Your task to perform on an android device: open app "Expedia: Hotels, Flights & Car" Image 0: 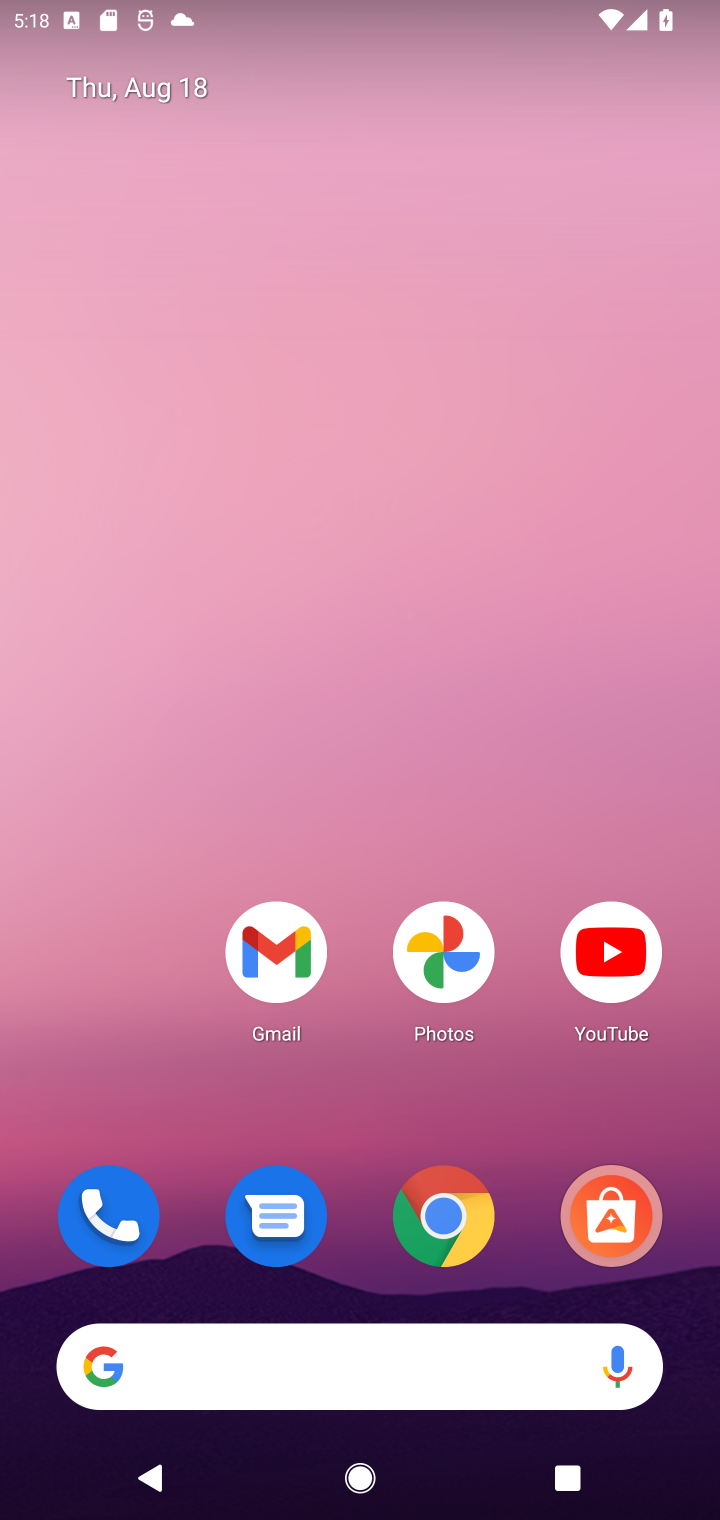
Step 0: drag from (367, 1081) to (355, 312)
Your task to perform on an android device: open app "Expedia: Hotels, Flights & Car" Image 1: 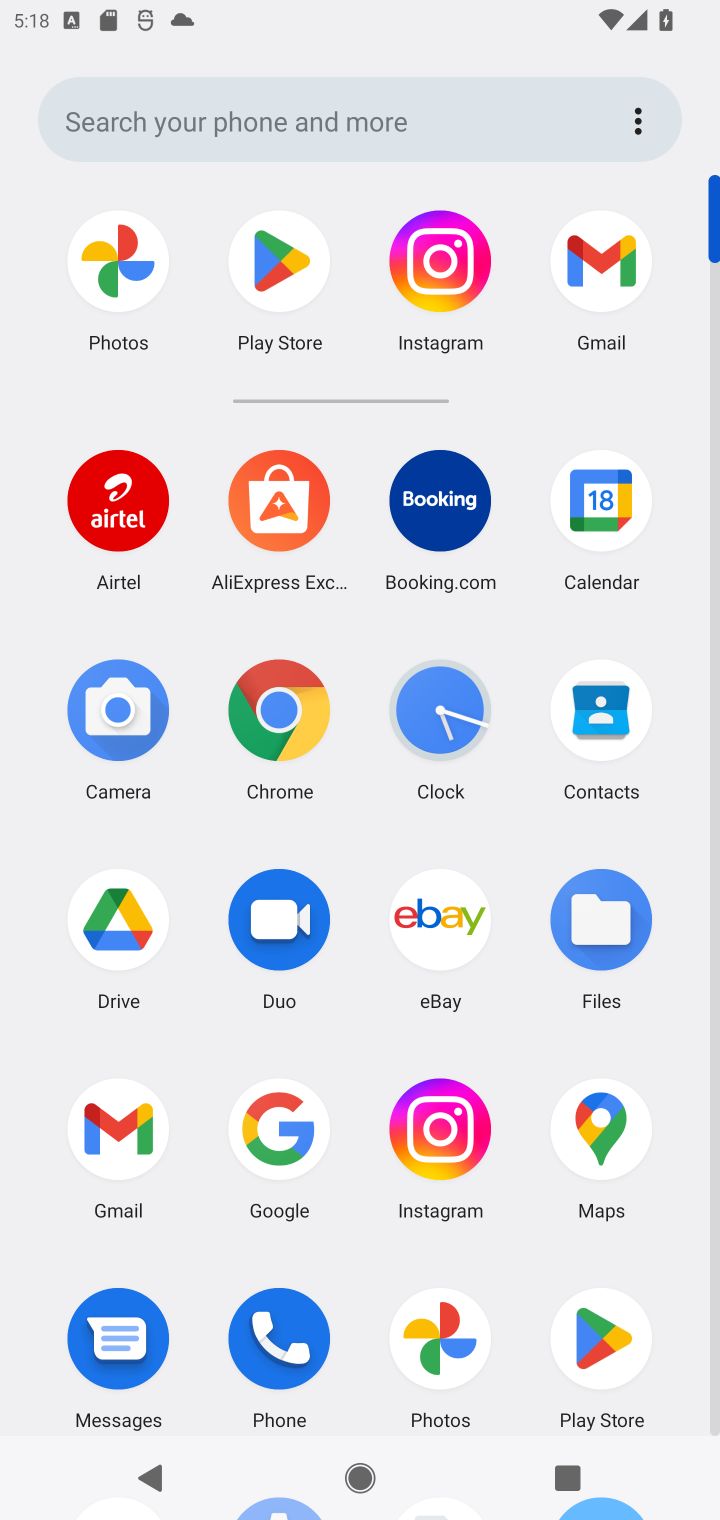
Step 1: click (288, 240)
Your task to perform on an android device: open app "Expedia: Hotels, Flights & Car" Image 2: 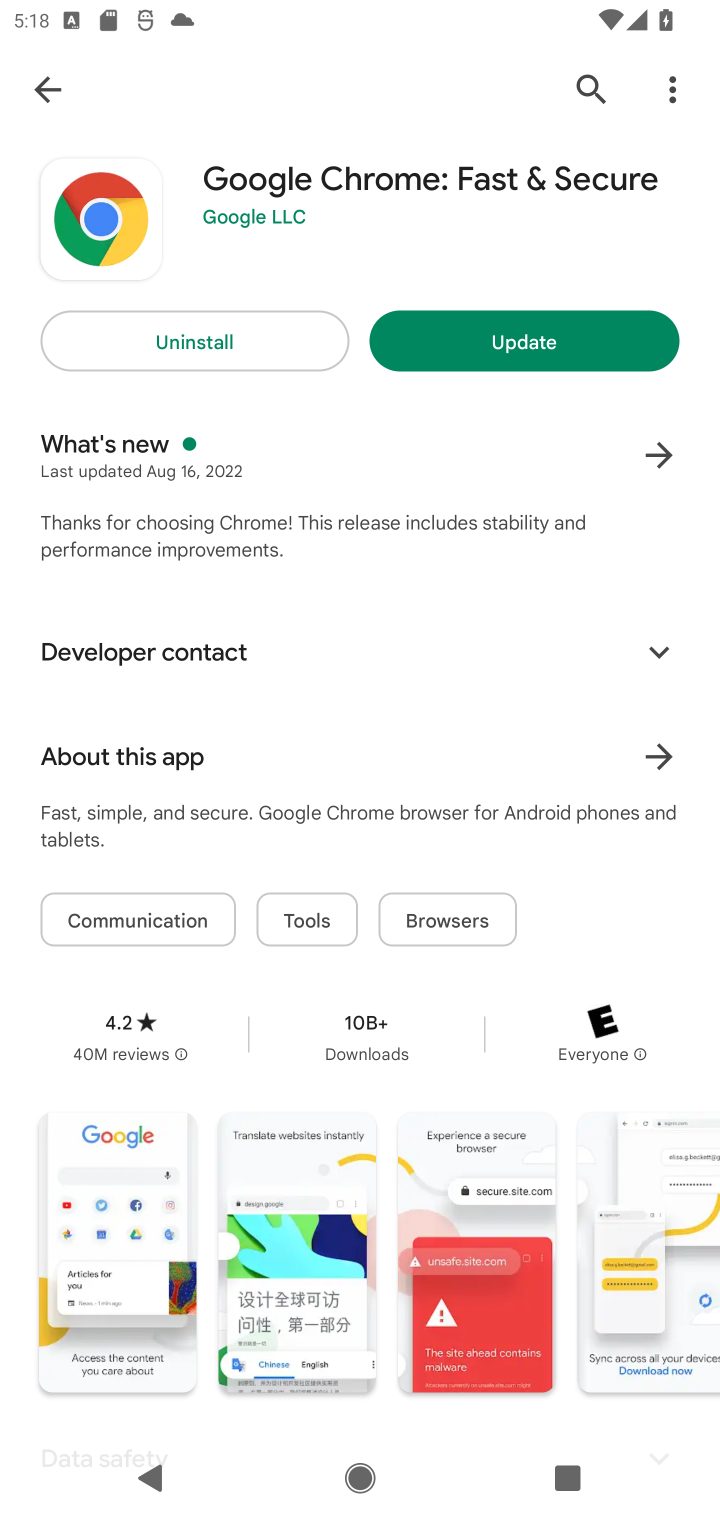
Step 2: click (584, 73)
Your task to perform on an android device: open app "Expedia: Hotels, Flights & Car" Image 3: 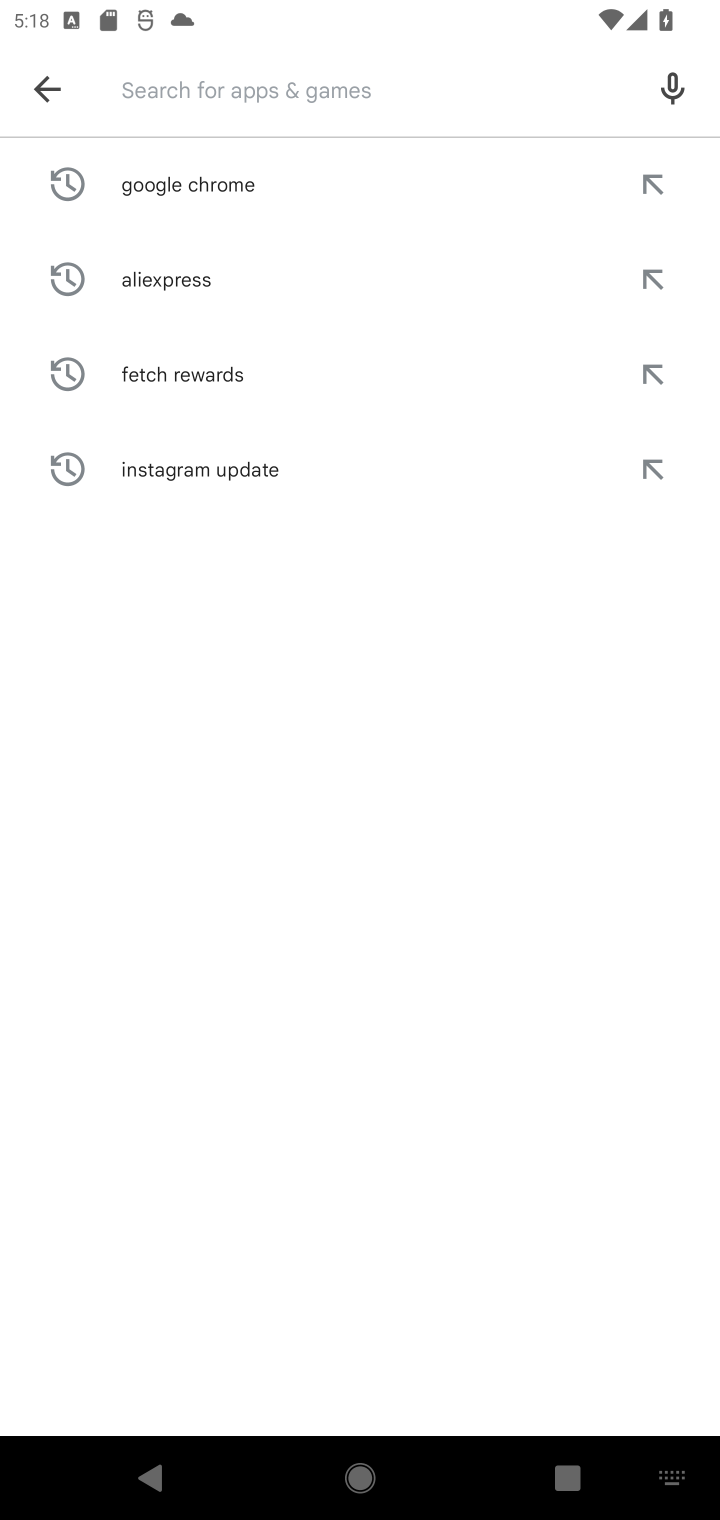
Step 3: type "Expedia: Hotels, Flights & Car"
Your task to perform on an android device: open app "Expedia: Hotels, Flights & Car" Image 4: 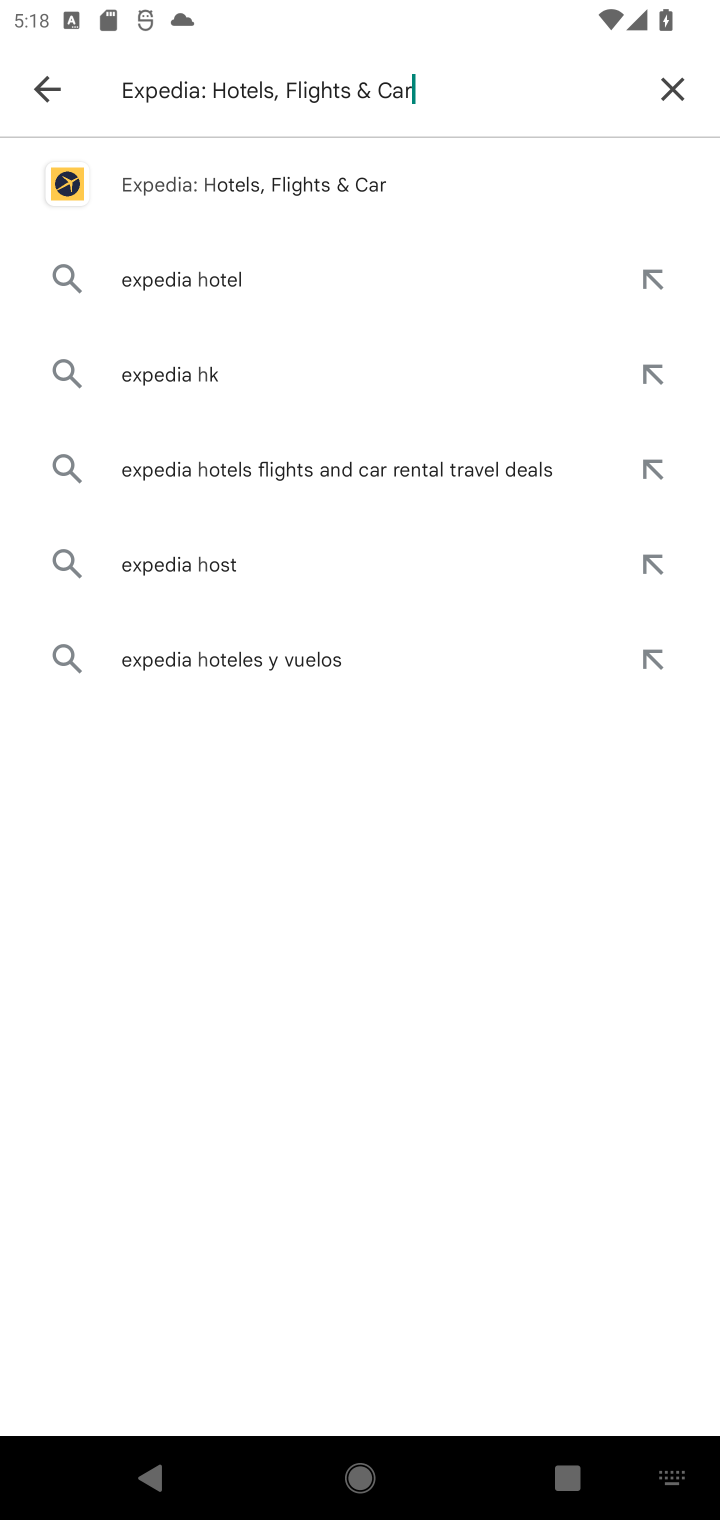
Step 4: type ""
Your task to perform on an android device: open app "Expedia: Hotels, Flights & Car" Image 5: 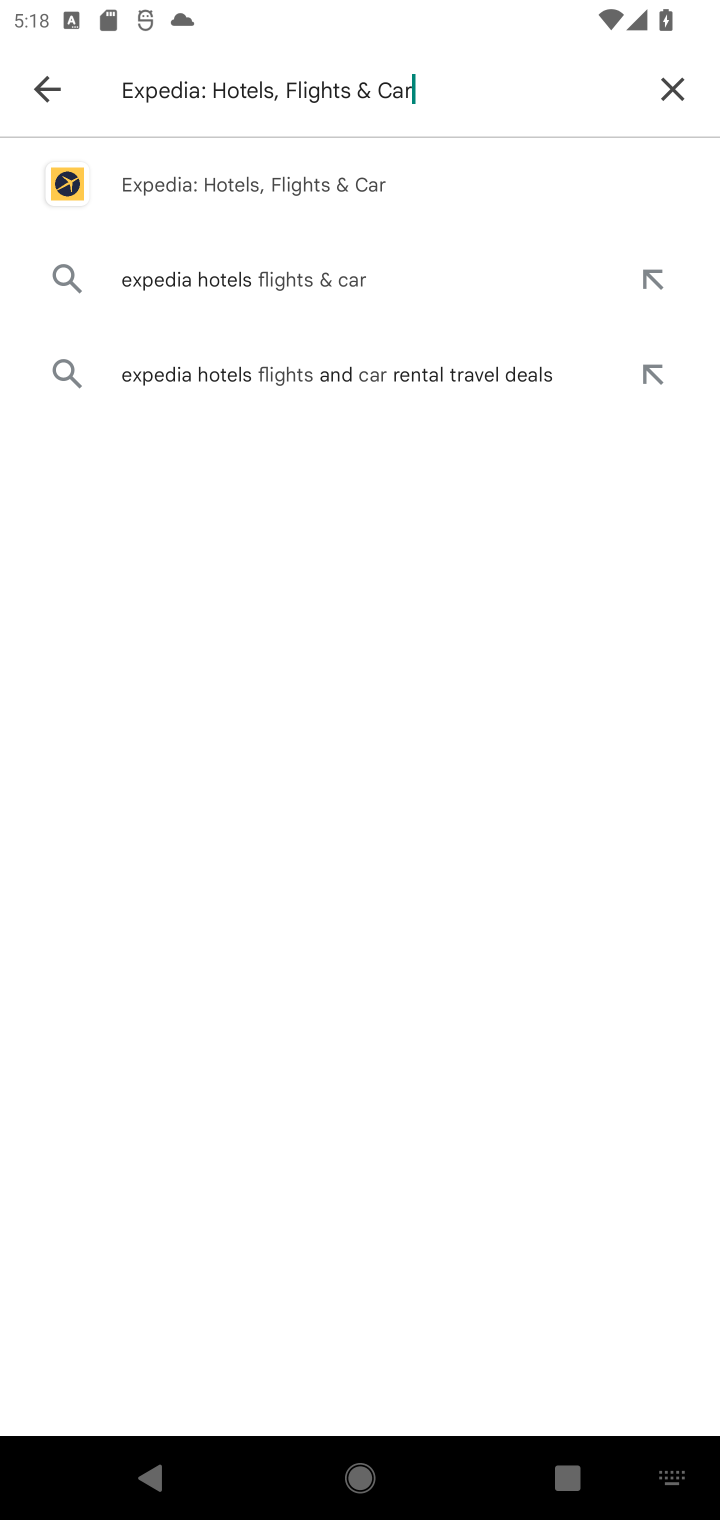
Step 5: click (377, 174)
Your task to perform on an android device: open app "Expedia: Hotels, Flights & Car" Image 6: 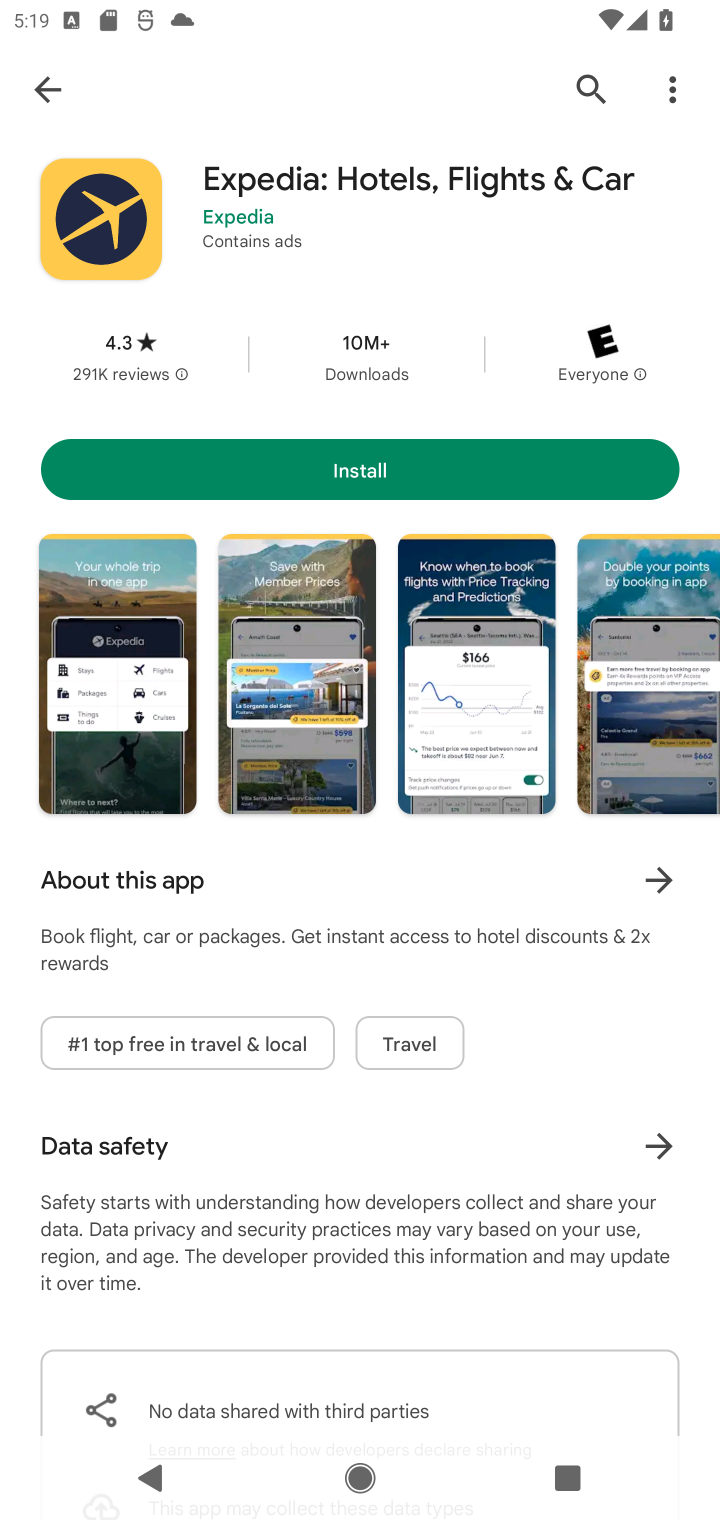
Step 6: task complete